Your task to perform on an android device: What is the recent news? Image 0: 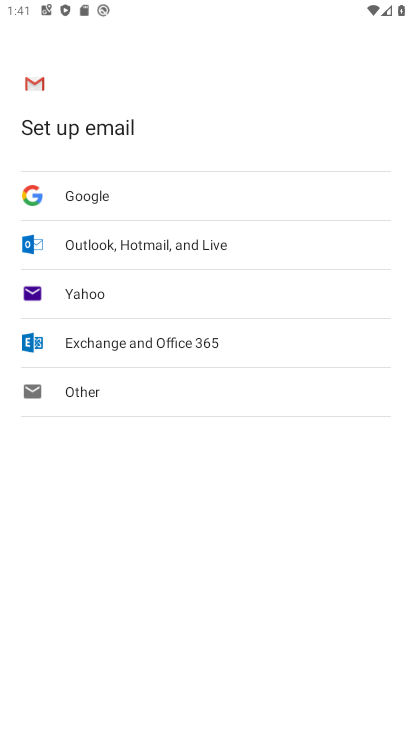
Step 0: press home button
Your task to perform on an android device: What is the recent news? Image 1: 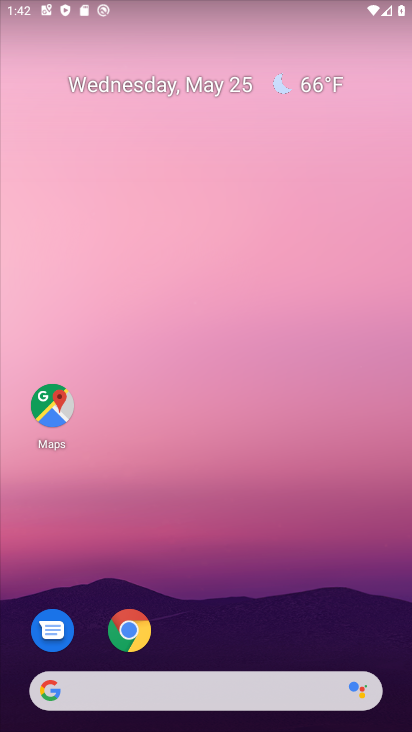
Step 1: task complete